Your task to perform on an android device: turn on the 12-hour format for clock Image 0: 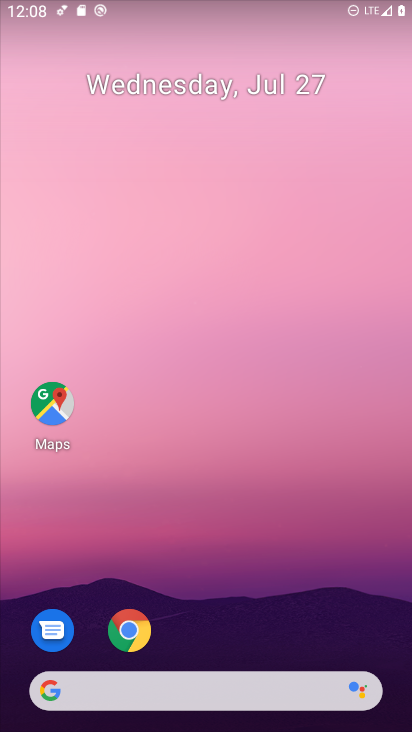
Step 0: drag from (380, 647) to (319, 133)
Your task to perform on an android device: turn on the 12-hour format for clock Image 1: 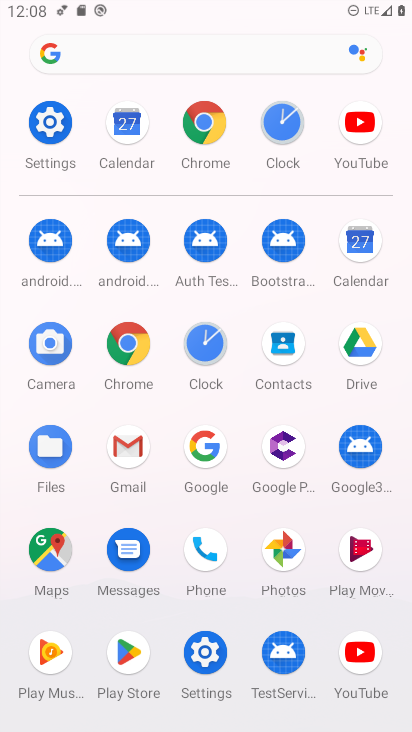
Step 1: click (202, 344)
Your task to perform on an android device: turn on the 12-hour format for clock Image 2: 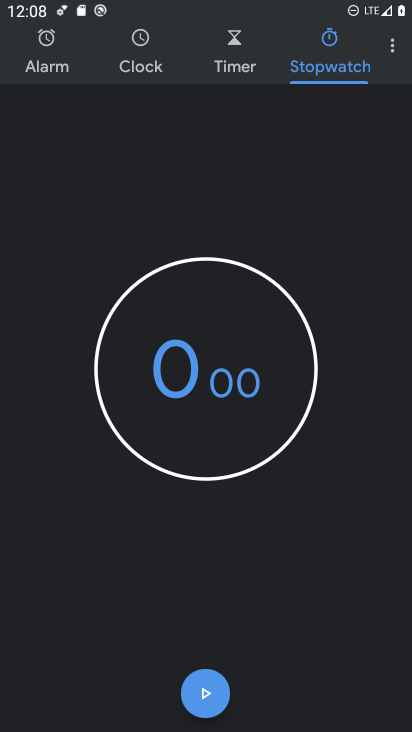
Step 2: click (392, 54)
Your task to perform on an android device: turn on the 12-hour format for clock Image 3: 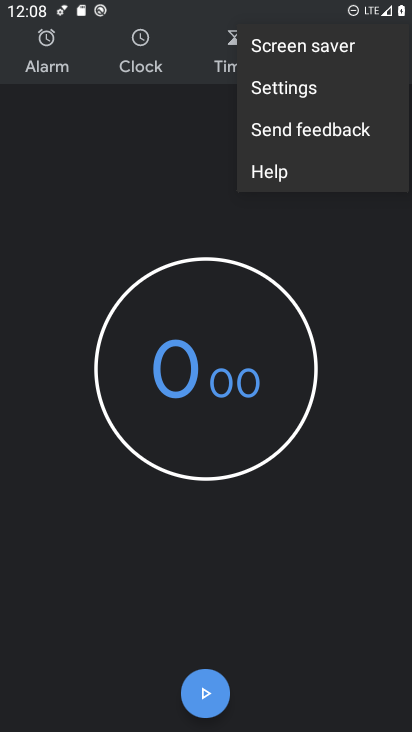
Step 3: click (274, 81)
Your task to perform on an android device: turn on the 12-hour format for clock Image 4: 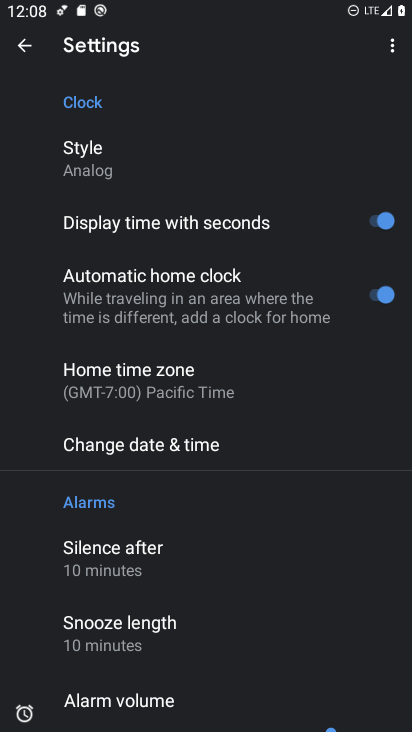
Step 4: click (163, 444)
Your task to perform on an android device: turn on the 12-hour format for clock Image 5: 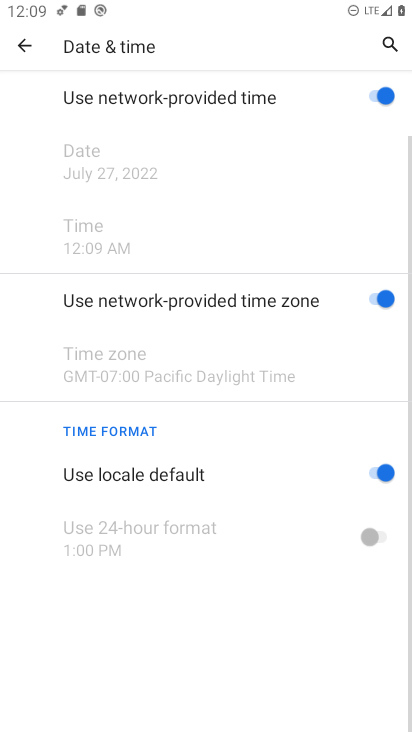
Step 5: task complete